Your task to perform on an android device: turn off airplane mode Image 0: 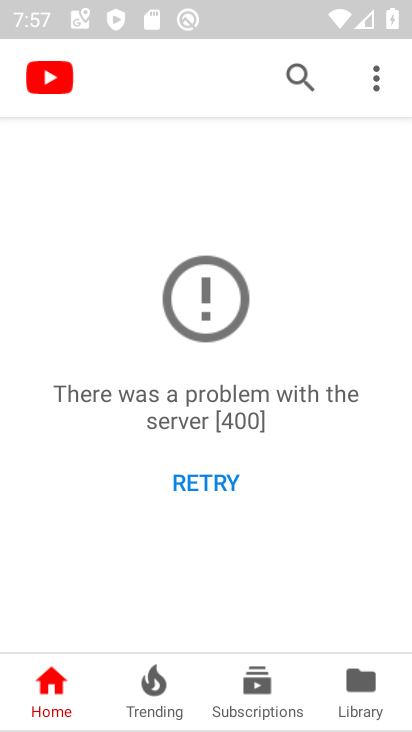
Step 0: press home button
Your task to perform on an android device: turn off airplane mode Image 1: 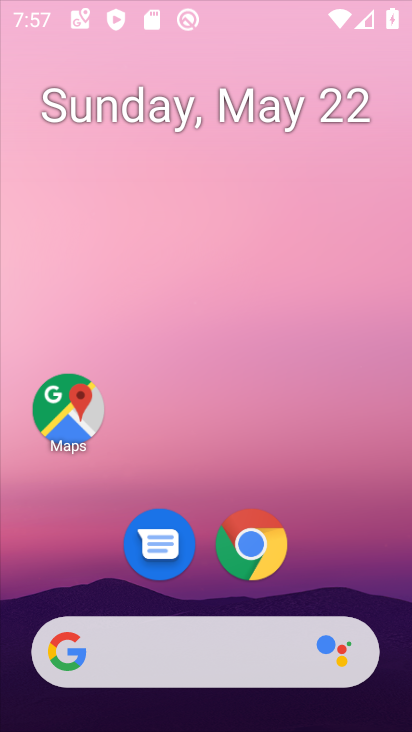
Step 1: task complete